Your task to perform on an android device: turn pop-ups off in chrome Image 0: 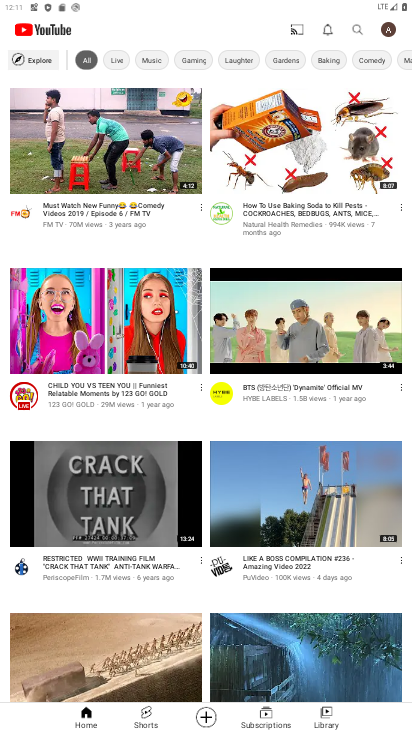
Step 0: press home button
Your task to perform on an android device: turn pop-ups off in chrome Image 1: 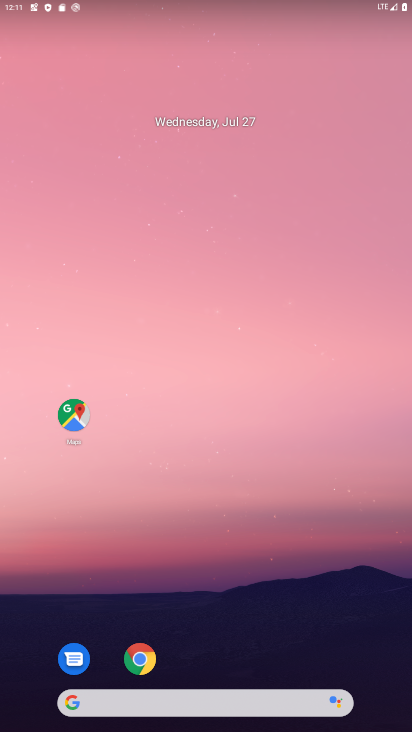
Step 1: click (140, 658)
Your task to perform on an android device: turn pop-ups off in chrome Image 2: 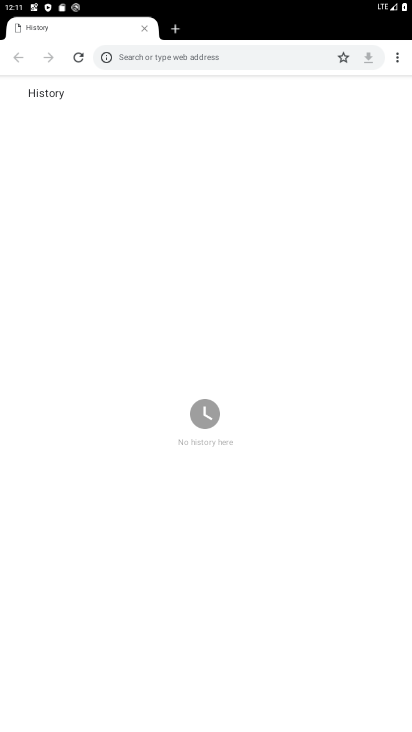
Step 2: click (395, 58)
Your task to perform on an android device: turn pop-ups off in chrome Image 3: 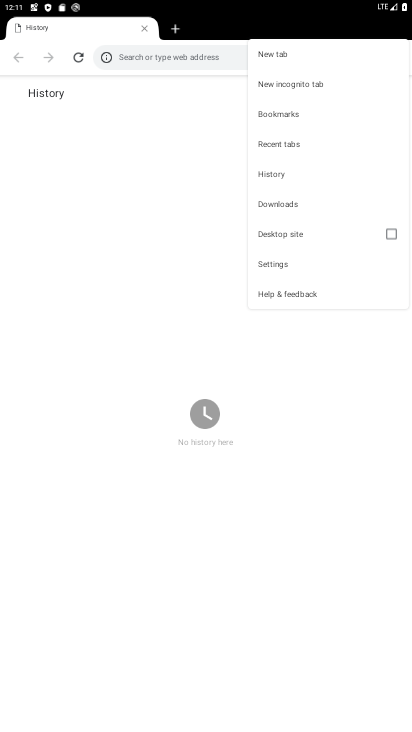
Step 3: click (287, 269)
Your task to perform on an android device: turn pop-ups off in chrome Image 4: 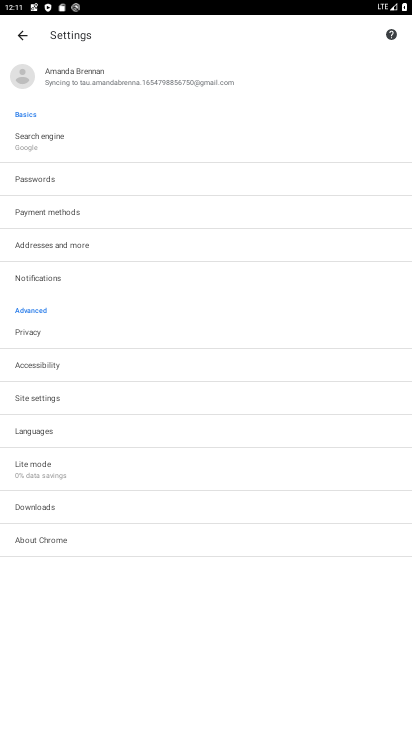
Step 4: click (70, 395)
Your task to perform on an android device: turn pop-ups off in chrome Image 5: 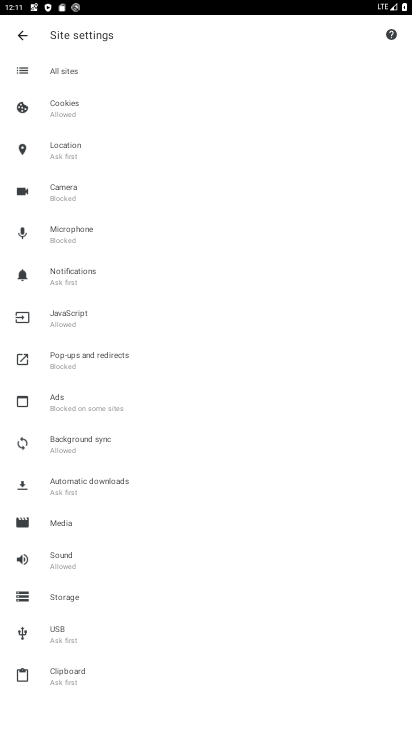
Step 5: click (91, 355)
Your task to perform on an android device: turn pop-ups off in chrome Image 6: 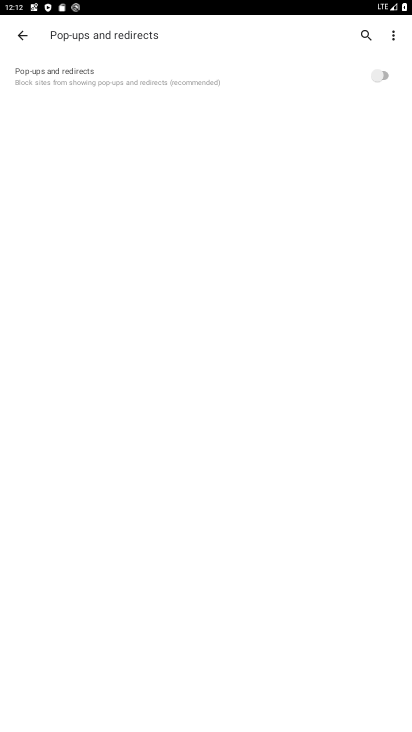
Step 6: task complete